Your task to perform on an android device: check android version Image 0: 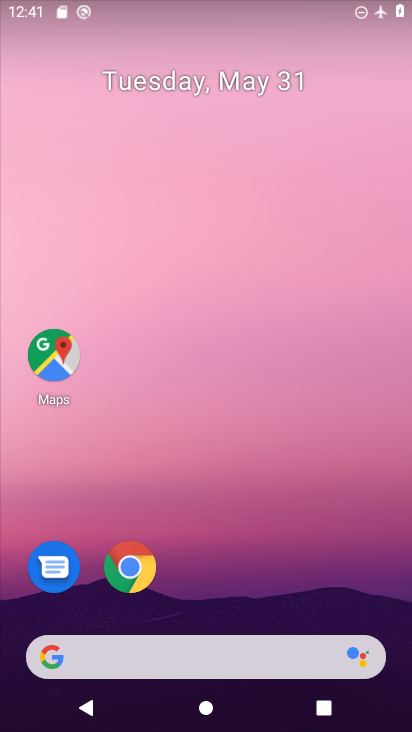
Step 0: drag from (200, 573) to (179, 231)
Your task to perform on an android device: check android version Image 1: 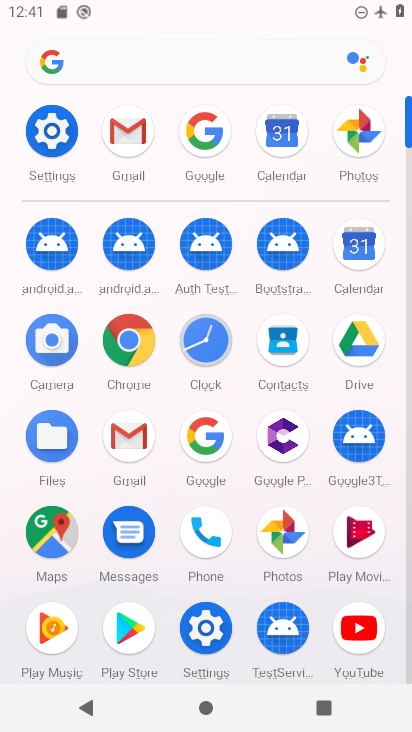
Step 1: click (71, 132)
Your task to perform on an android device: check android version Image 2: 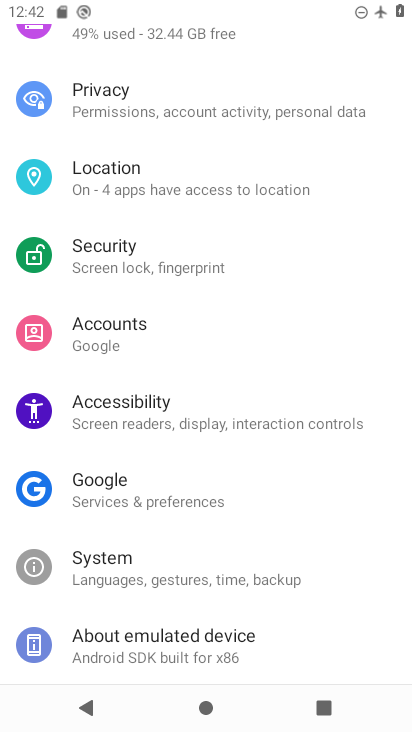
Step 2: drag from (140, 652) to (156, 293)
Your task to perform on an android device: check android version Image 3: 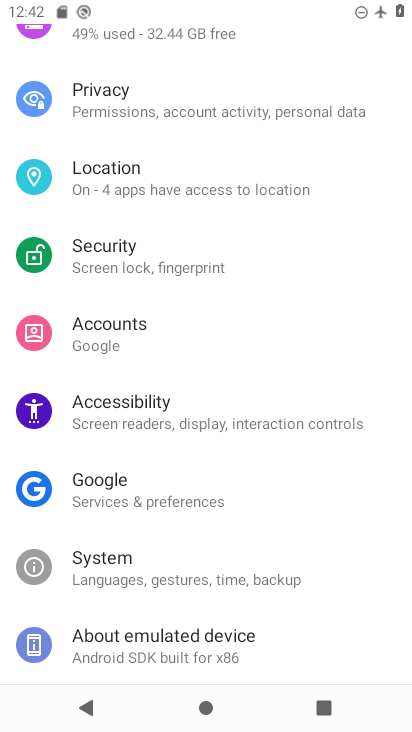
Step 3: click (157, 666)
Your task to perform on an android device: check android version Image 4: 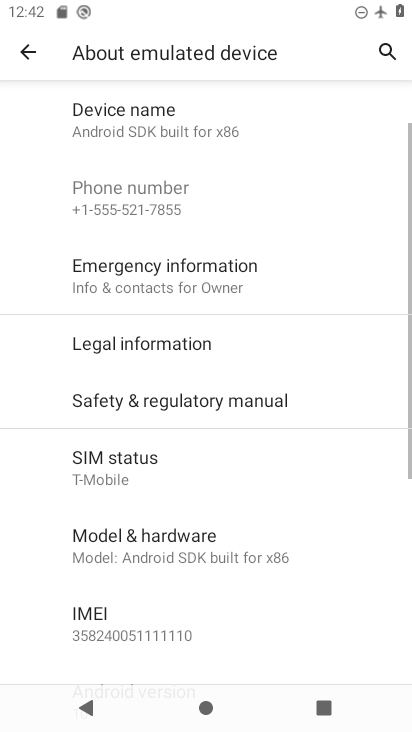
Step 4: drag from (172, 564) to (187, 258)
Your task to perform on an android device: check android version Image 5: 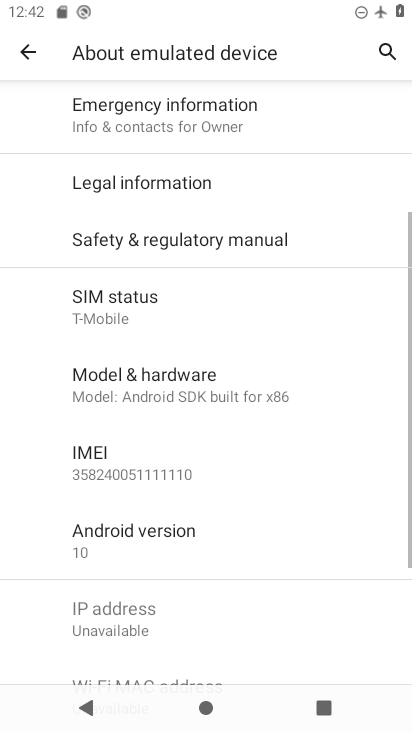
Step 5: click (129, 515)
Your task to perform on an android device: check android version Image 6: 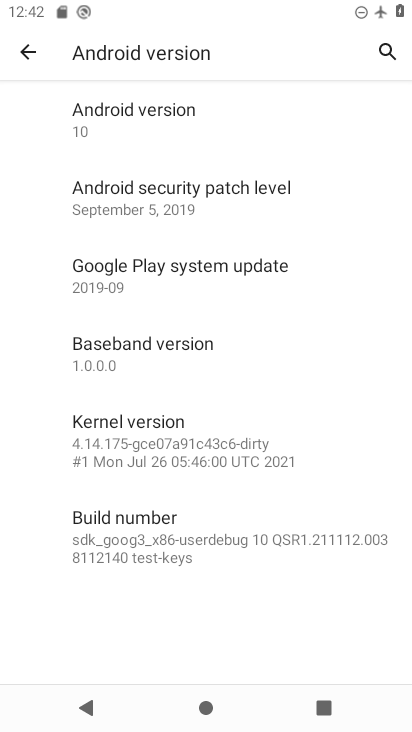
Step 6: click (153, 140)
Your task to perform on an android device: check android version Image 7: 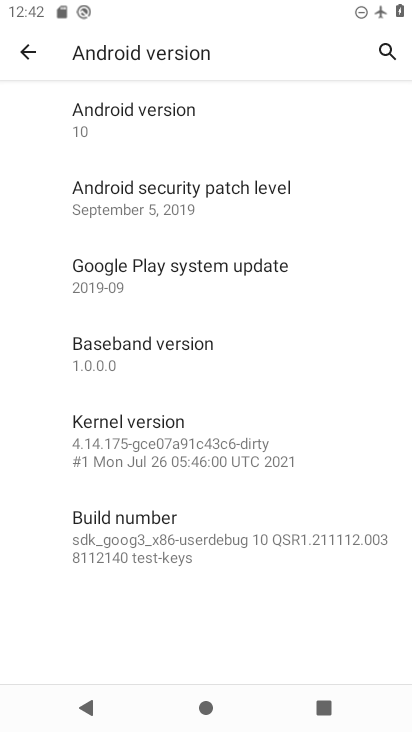
Step 7: task complete